Your task to perform on an android device: Turn on the flashlight Image 0: 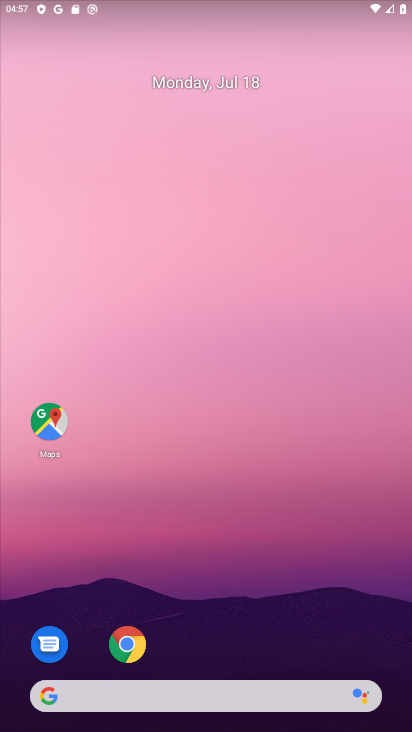
Step 0: press home button
Your task to perform on an android device: Turn on the flashlight Image 1: 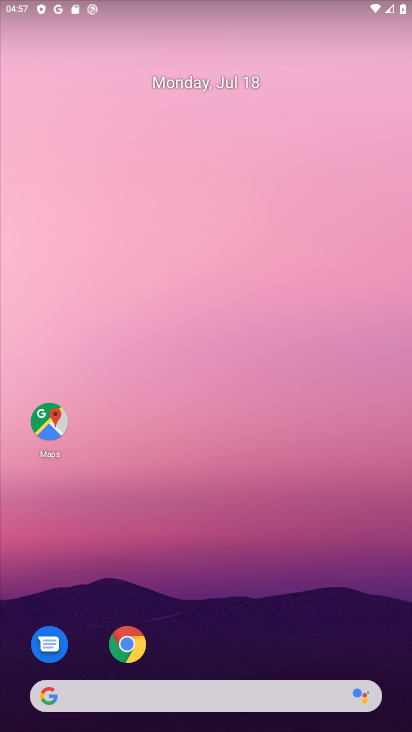
Step 1: task complete